Your task to perform on an android device: check battery use Image 0: 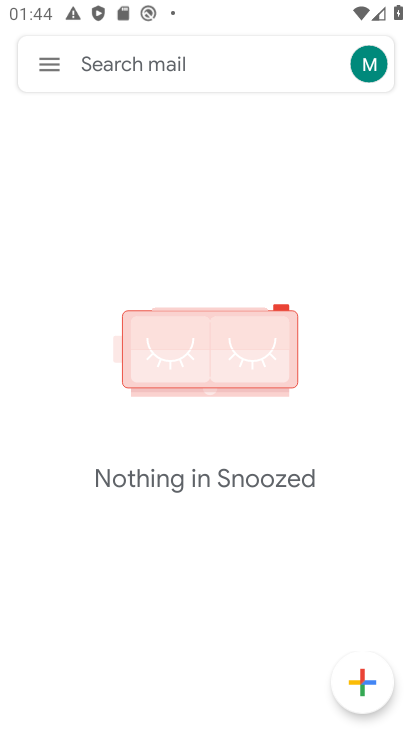
Step 0: press home button
Your task to perform on an android device: check battery use Image 1: 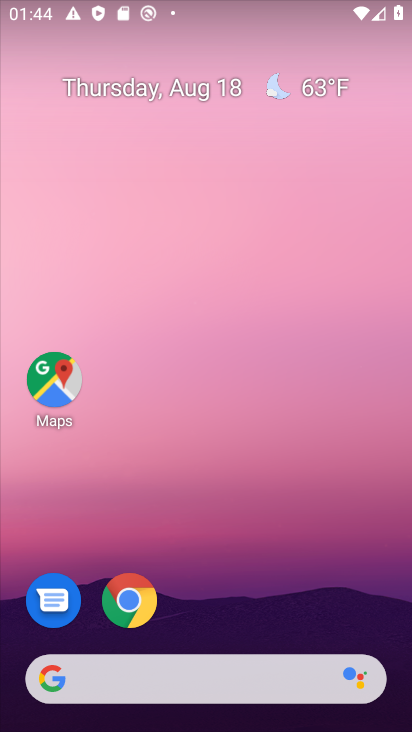
Step 1: drag from (287, 570) to (258, 180)
Your task to perform on an android device: check battery use Image 2: 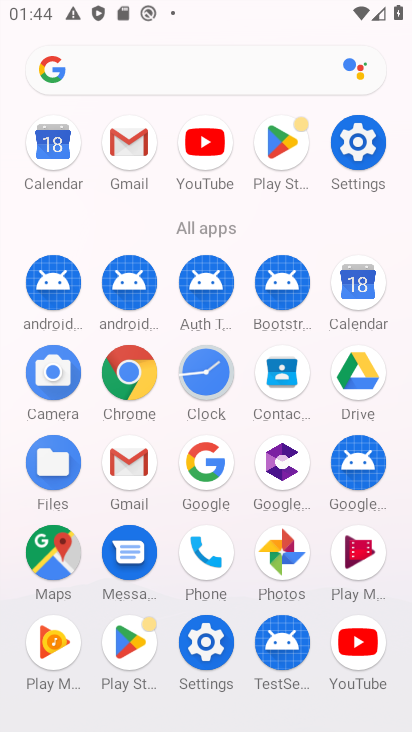
Step 2: click (362, 137)
Your task to perform on an android device: check battery use Image 3: 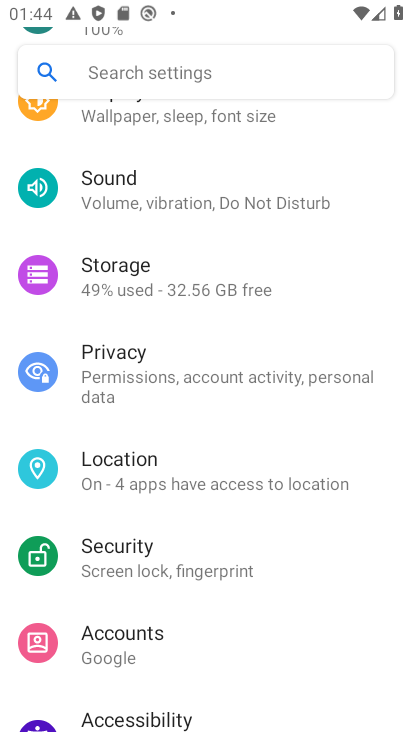
Step 3: drag from (185, 242) to (206, 609)
Your task to perform on an android device: check battery use Image 4: 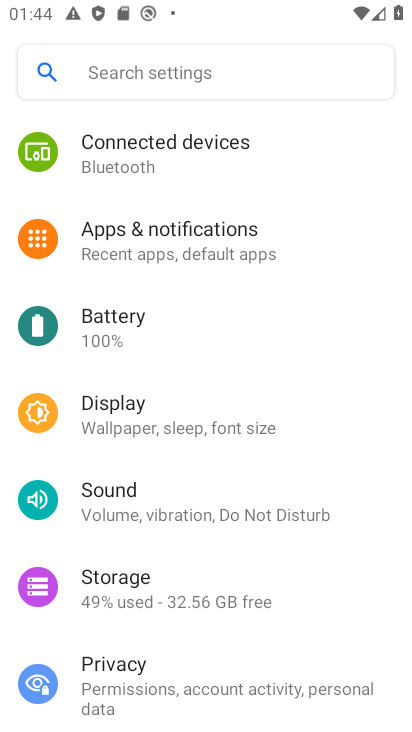
Step 4: click (119, 311)
Your task to perform on an android device: check battery use Image 5: 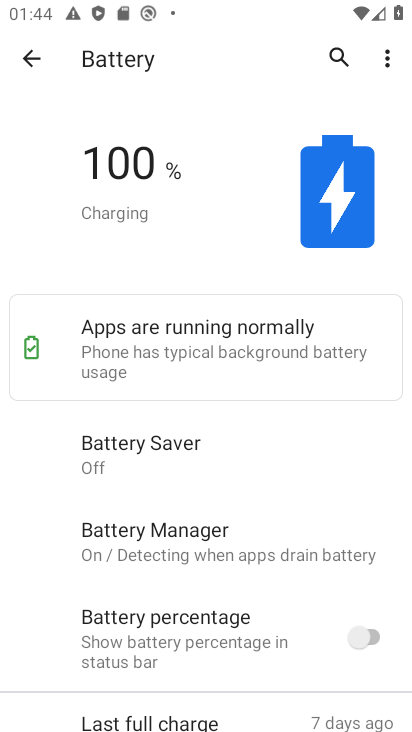
Step 5: task complete